Your task to perform on an android device: turn on priority inbox in the gmail app Image 0: 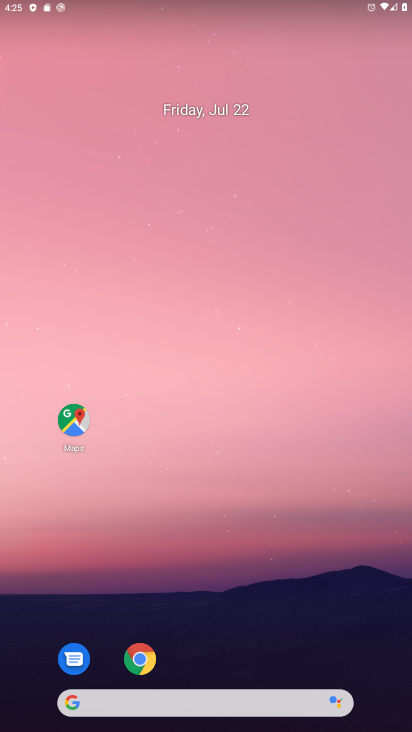
Step 0: press home button
Your task to perform on an android device: turn on priority inbox in the gmail app Image 1: 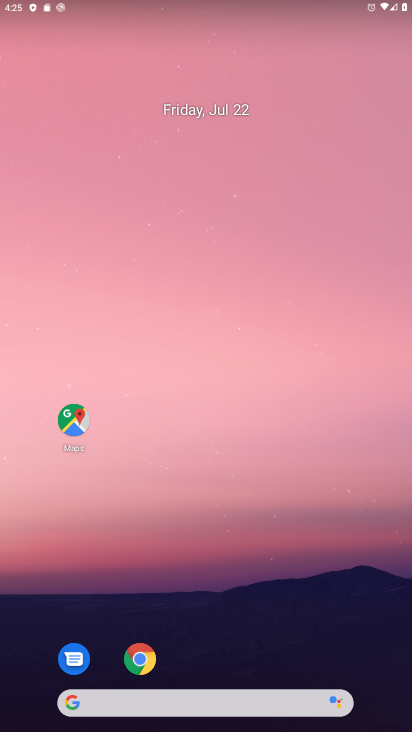
Step 1: drag from (219, 673) to (210, 55)
Your task to perform on an android device: turn on priority inbox in the gmail app Image 2: 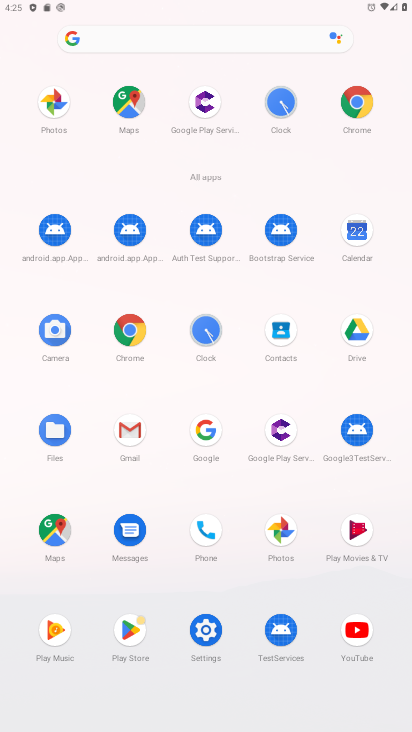
Step 2: click (125, 425)
Your task to perform on an android device: turn on priority inbox in the gmail app Image 3: 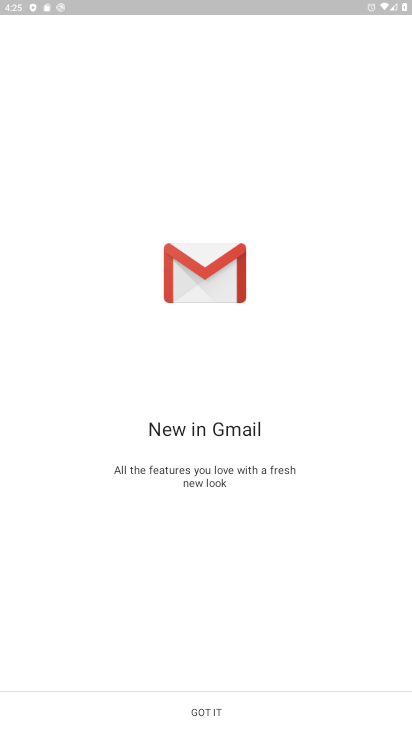
Step 3: click (208, 706)
Your task to perform on an android device: turn on priority inbox in the gmail app Image 4: 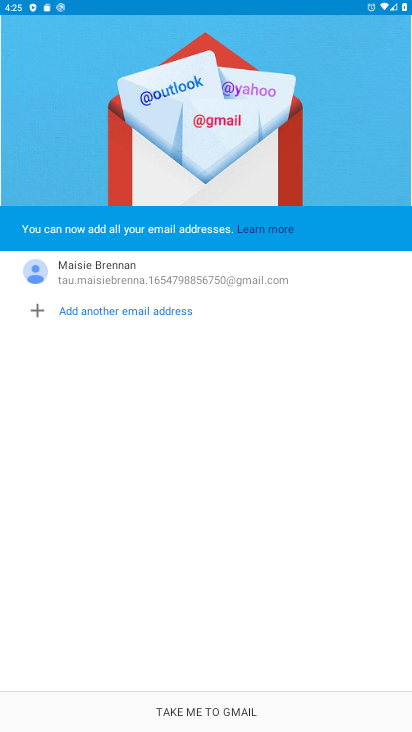
Step 4: click (201, 713)
Your task to perform on an android device: turn on priority inbox in the gmail app Image 5: 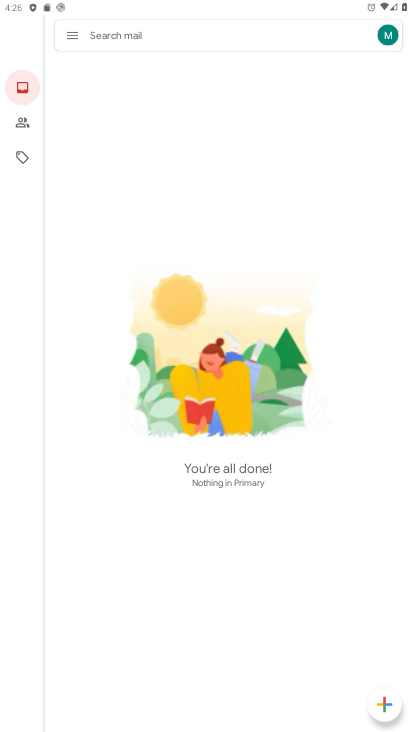
Step 5: click (68, 36)
Your task to perform on an android device: turn on priority inbox in the gmail app Image 6: 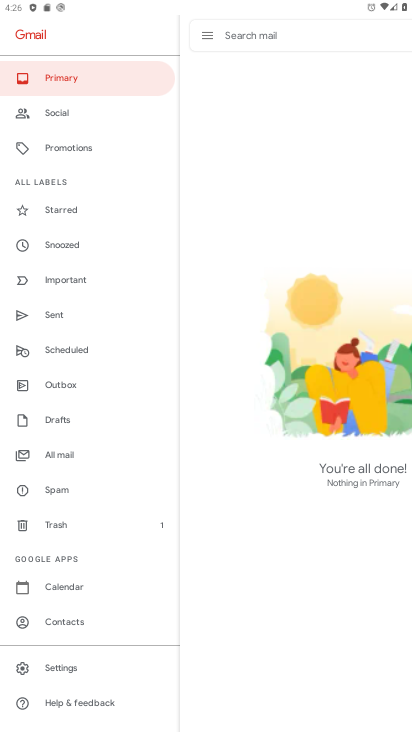
Step 6: click (72, 665)
Your task to perform on an android device: turn on priority inbox in the gmail app Image 7: 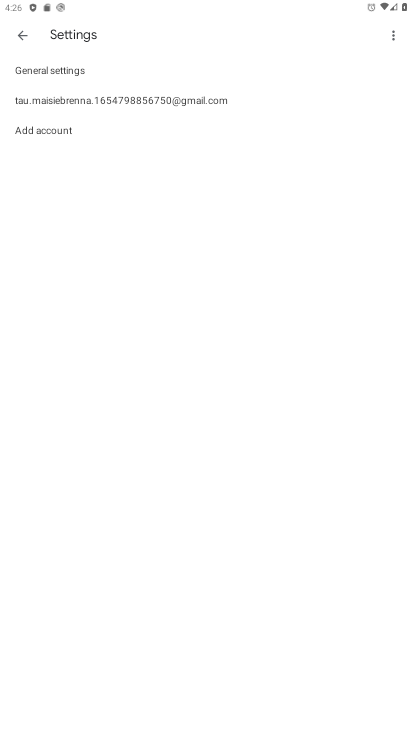
Step 7: click (241, 97)
Your task to perform on an android device: turn on priority inbox in the gmail app Image 8: 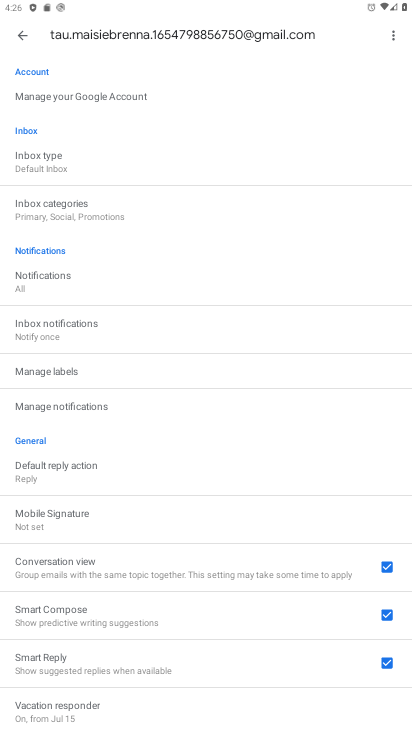
Step 8: click (78, 160)
Your task to perform on an android device: turn on priority inbox in the gmail app Image 9: 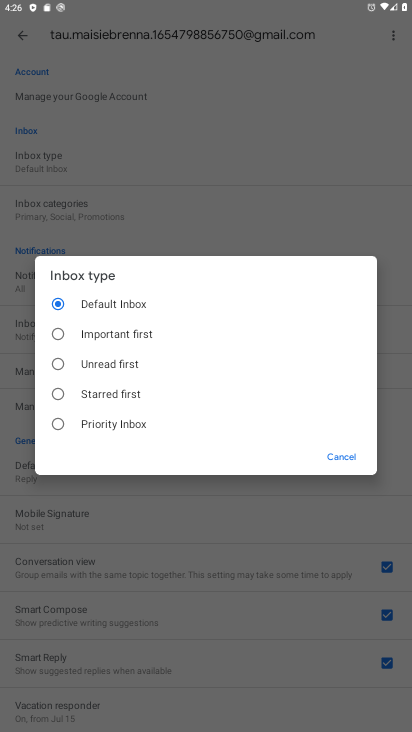
Step 9: click (61, 424)
Your task to perform on an android device: turn on priority inbox in the gmail app Image 10: 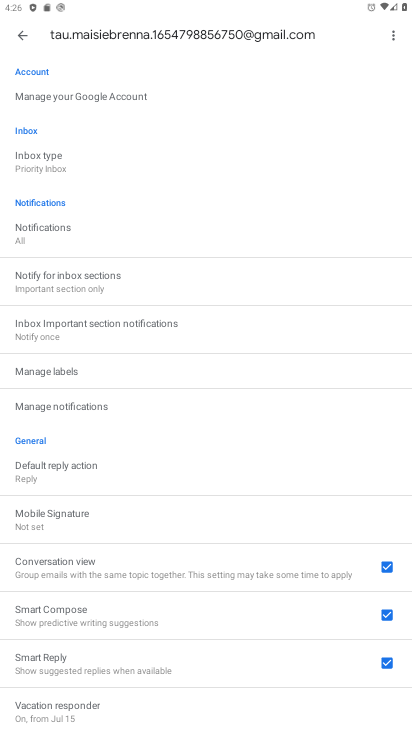
Step 10: task complete